Your task to perform on an android device: change the clock display to analog Image 0: 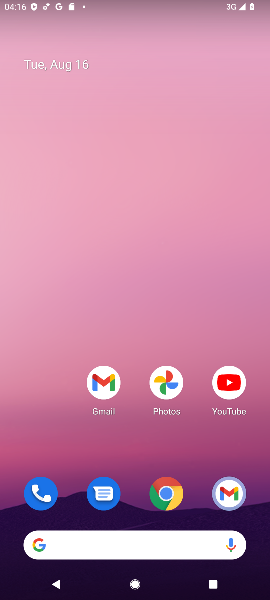
Step 0: press home button
Your task to perform on an android device: change the clock display to analog Image 1: 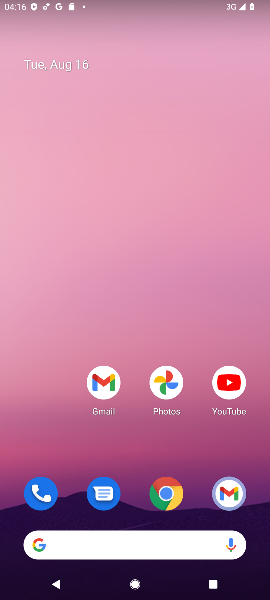
Step 1: drag from (70, 514) to (91, 176)
Your task to perform on an android device: change the clock display to analog Image 2: 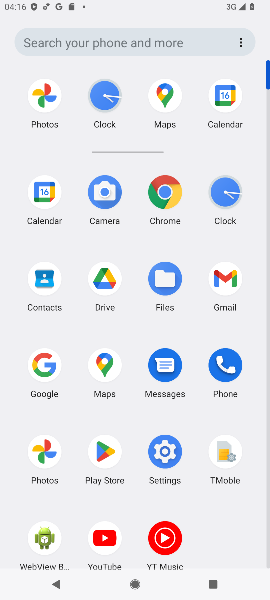
Step 2: click (228, 192)
Your task to perform on an android device: change the clock display to analog Image 3: 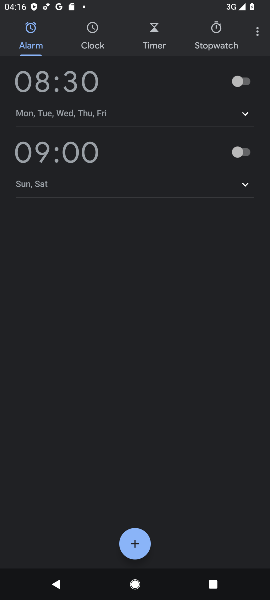
Step 3: click (258, 32)
Your task to perform on an android device: change the clock display to analog Image 4: 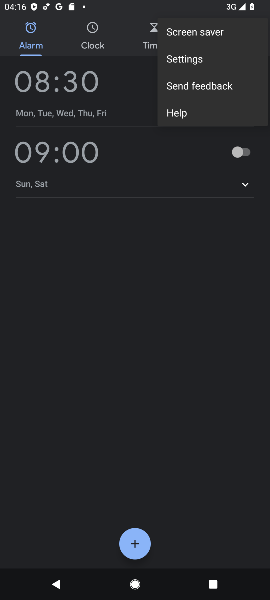
Step 4: click (207, 58)
Your task to perform on an android device: change the clock display to analog Image 5: 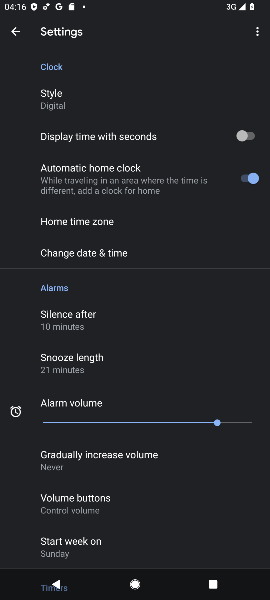
Step 5: drag from (211, 288) to (216, 215)
Your task to perform on an android device: change the clock display to analog Image 6: 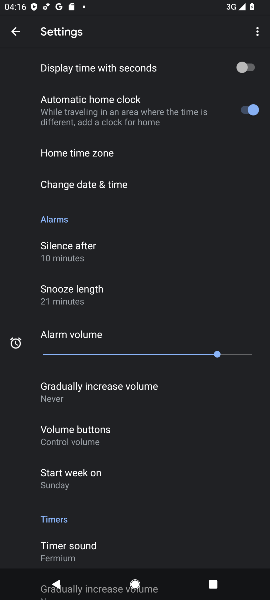
Step 6: drag from (182, 307) to (196, 215)
Your task to perform on an android device: change the clock display to analog Image 7: 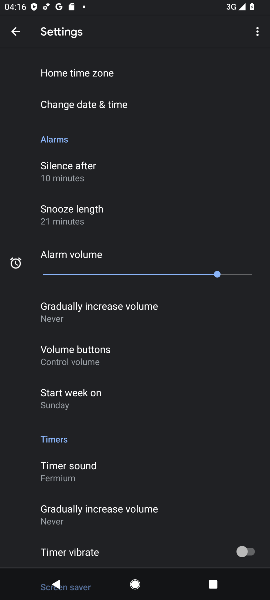
Step 7: drag from (171, 353) to (191, 229)
Your task to perform on an android device: change the clock display to analog Image 8: 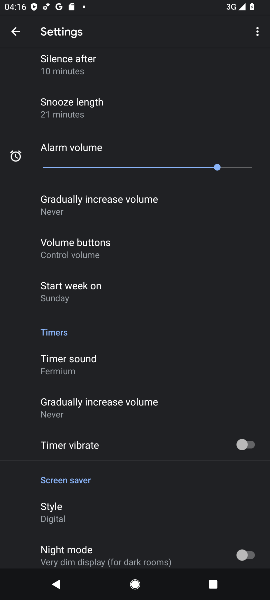
Step 8: drag from (193, 409) to (207, 282)
Your task to perform on an android device: change the clock display to analog Image 9: 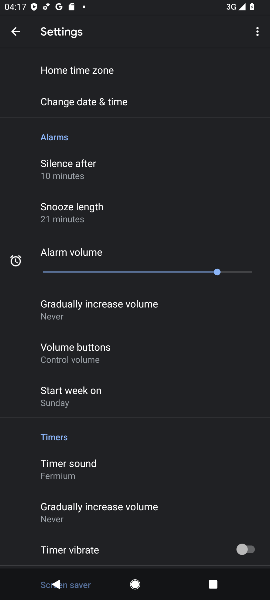
Step 9: drag from (242, 151) to (242, 292)
Your task to perform on an android device: change the clock display to analog Image 10: 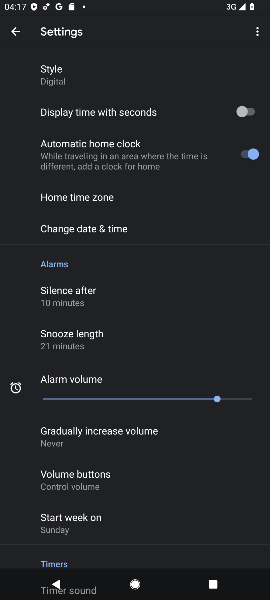
Step 10: drag from (211, 101) to (210, 220)
Your task to perform on an android device: change the clock display to analog Image 11: 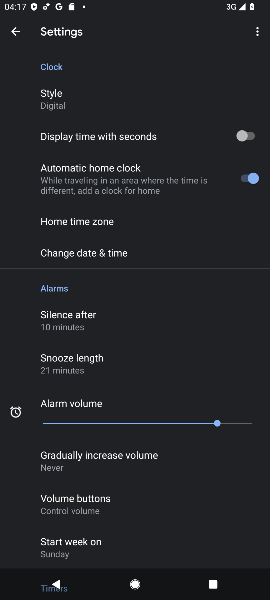
Step 11: click (78, 108)
Your task to perform on an android device: change the clock display to analog Image 12: 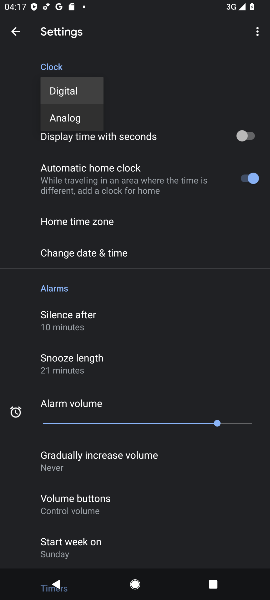
Step 12: click (76, 116)
Your task to perform on an android device: change the clock display to analog Image 13: 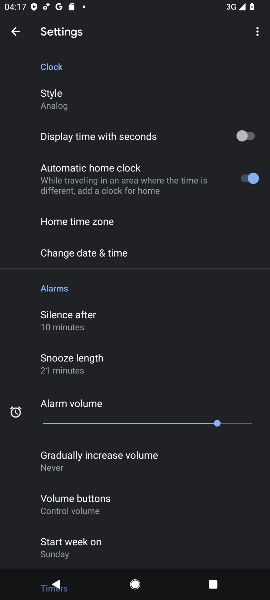
Step 13: task complete